Your task to perform on an android device: View the shopping cart on newegg. Add dell xps to the cart on newegg, then select checkout. Image 0: 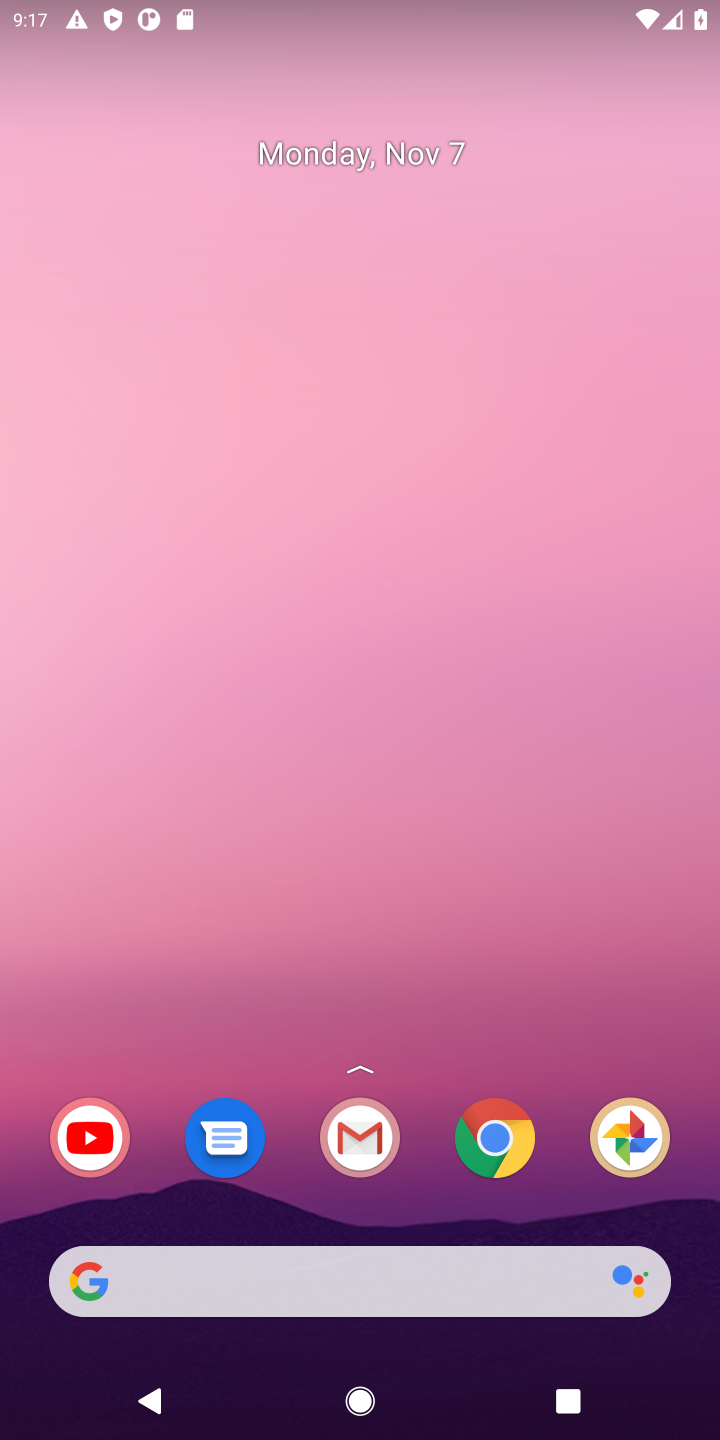
Step 0: click (500, 1156)
Your task to perform on an android device: View the shopping cart on newegg. Add dell xps to the cart on newegg, then select checkout. Image 1: 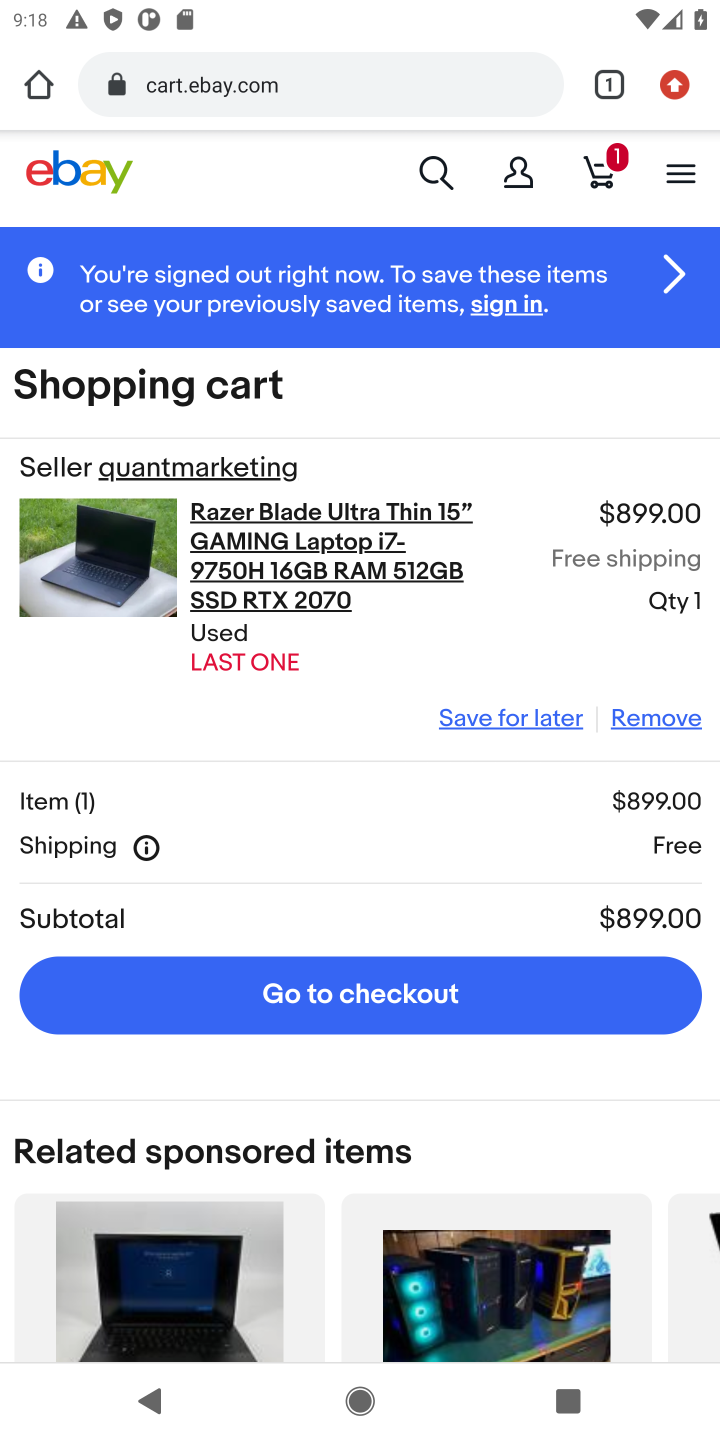
Step 1: click (172, 85)
Your task to perform on an android device: View the shopping cart on newegg. Add dell xps to the cart on newegg, then select checkout. Image 2: 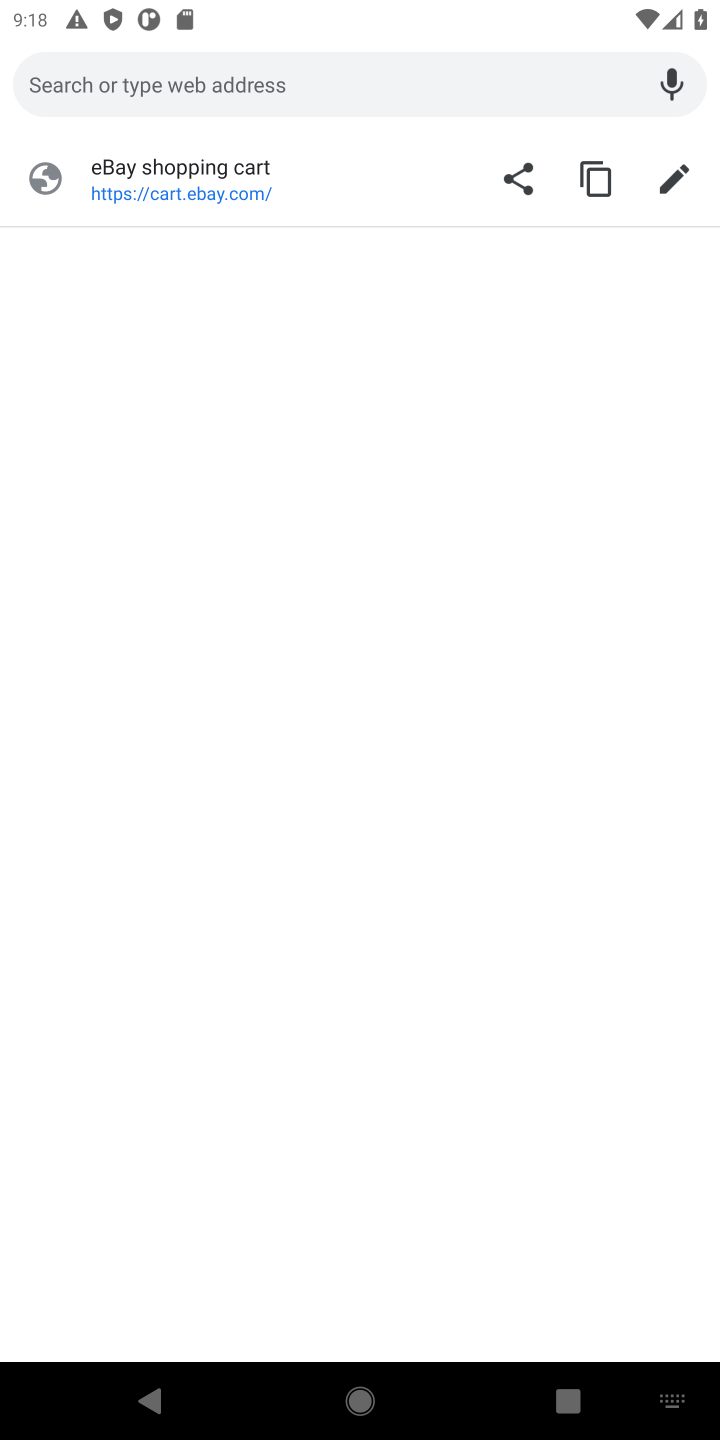
Step 2: type "newegg"
Your task to perform on an android device: View the shopping cart on newegg. Add dell xps to the cart on newegg, then select checkout. Image 3: 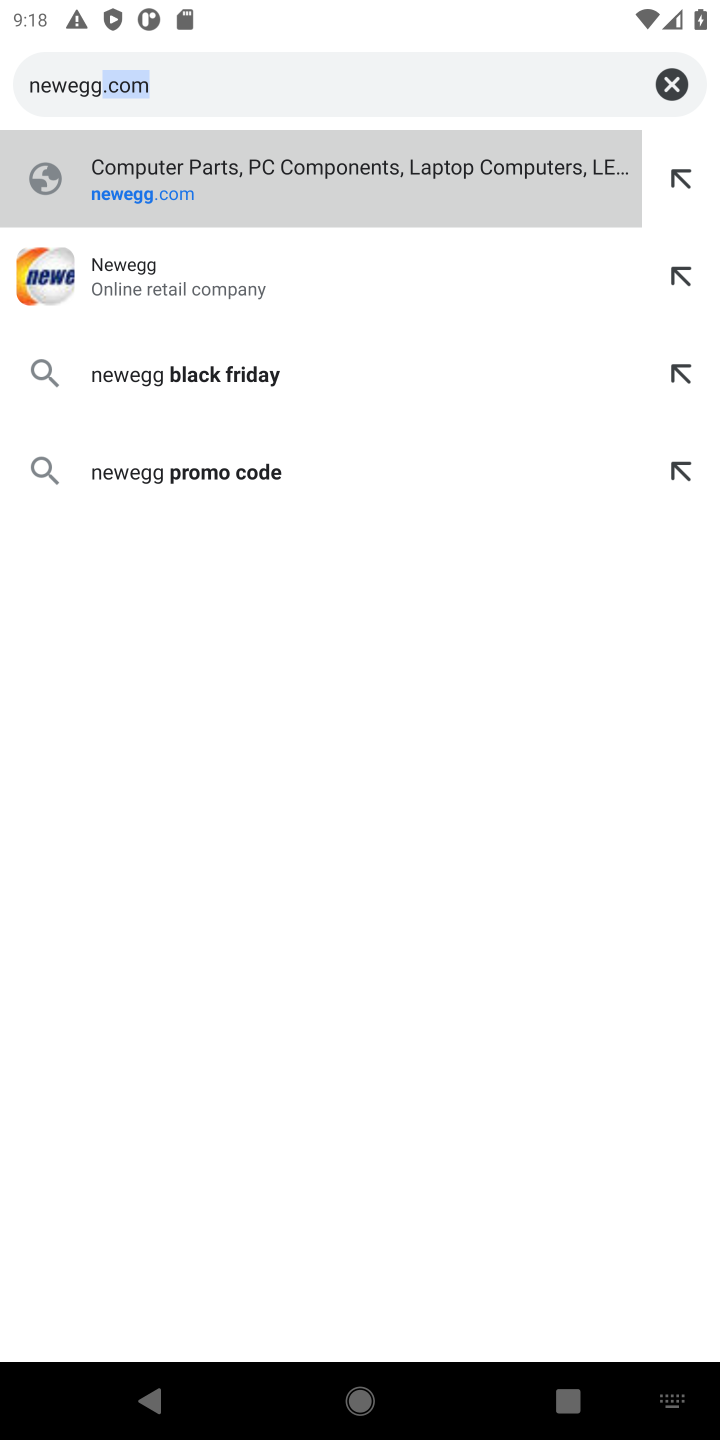
Step 3: type ""
Your task to perform on an android device: View the shopping cart on newegg. Add dell xps to the cart on newegg, then select checkout. Image 4: 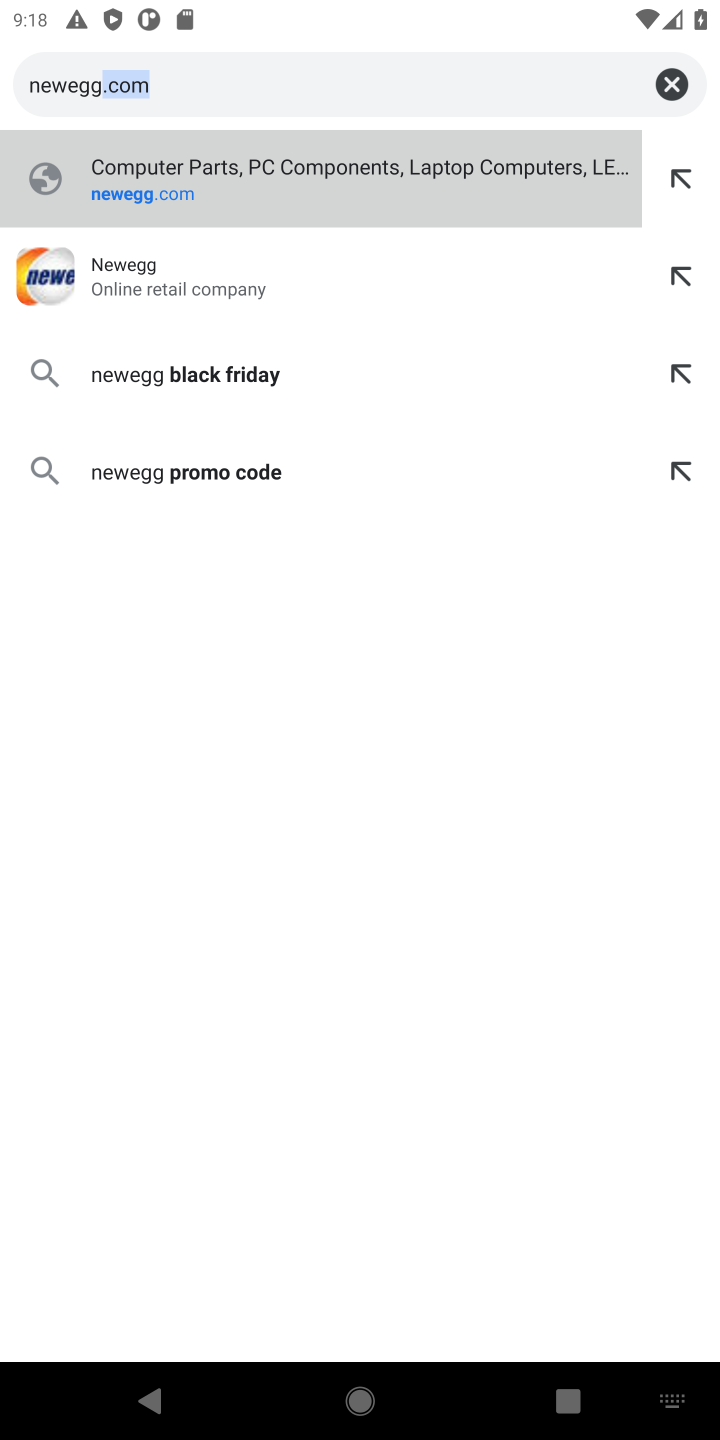
Step 4: click (150, 293)
Your task to perform on an android device: View the shopping cart on newegg. Add dell xps to the cart on newegg, then select checkout. Image 5: 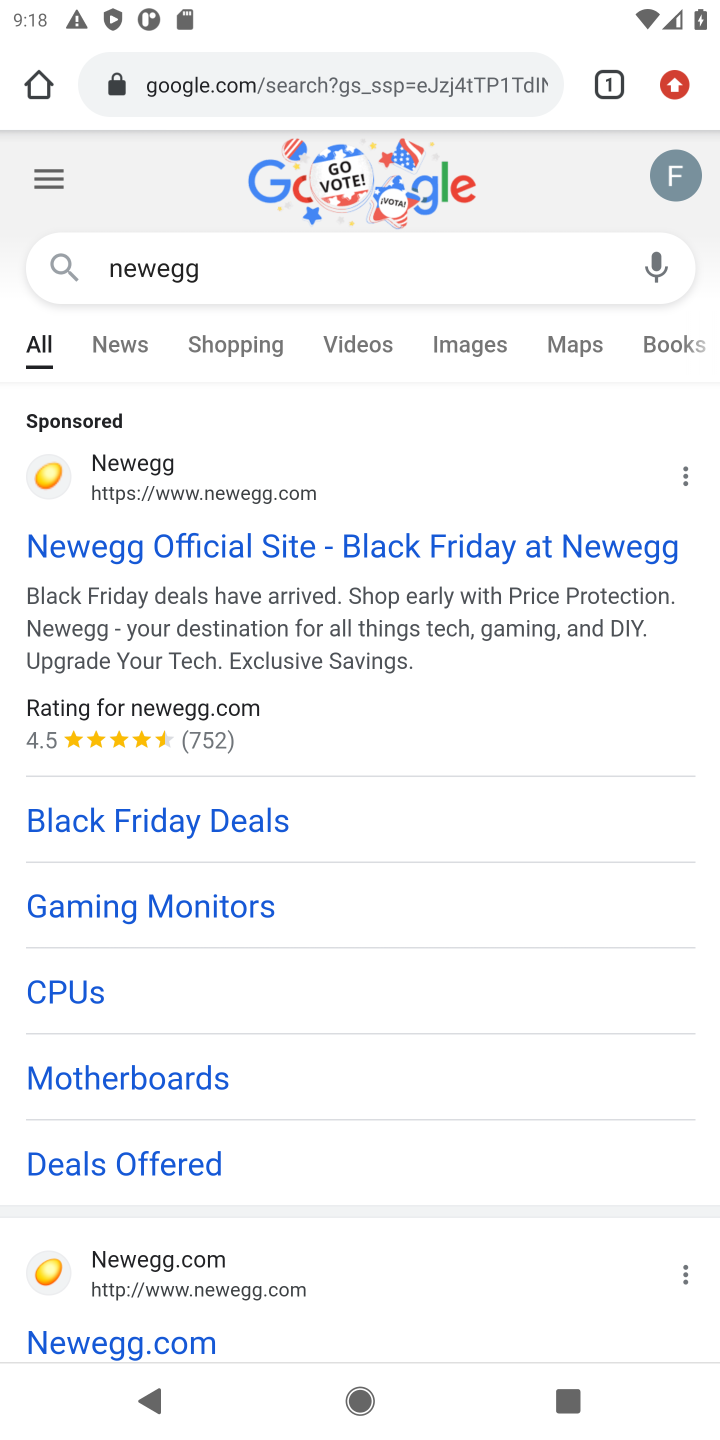
Step 5: drag from (190, 1004) to (263, 325)
Your task to perform on an android device: View the shopping cart on newegg. Add dell xps to the cart on newegg, then select checkout. Image 6: 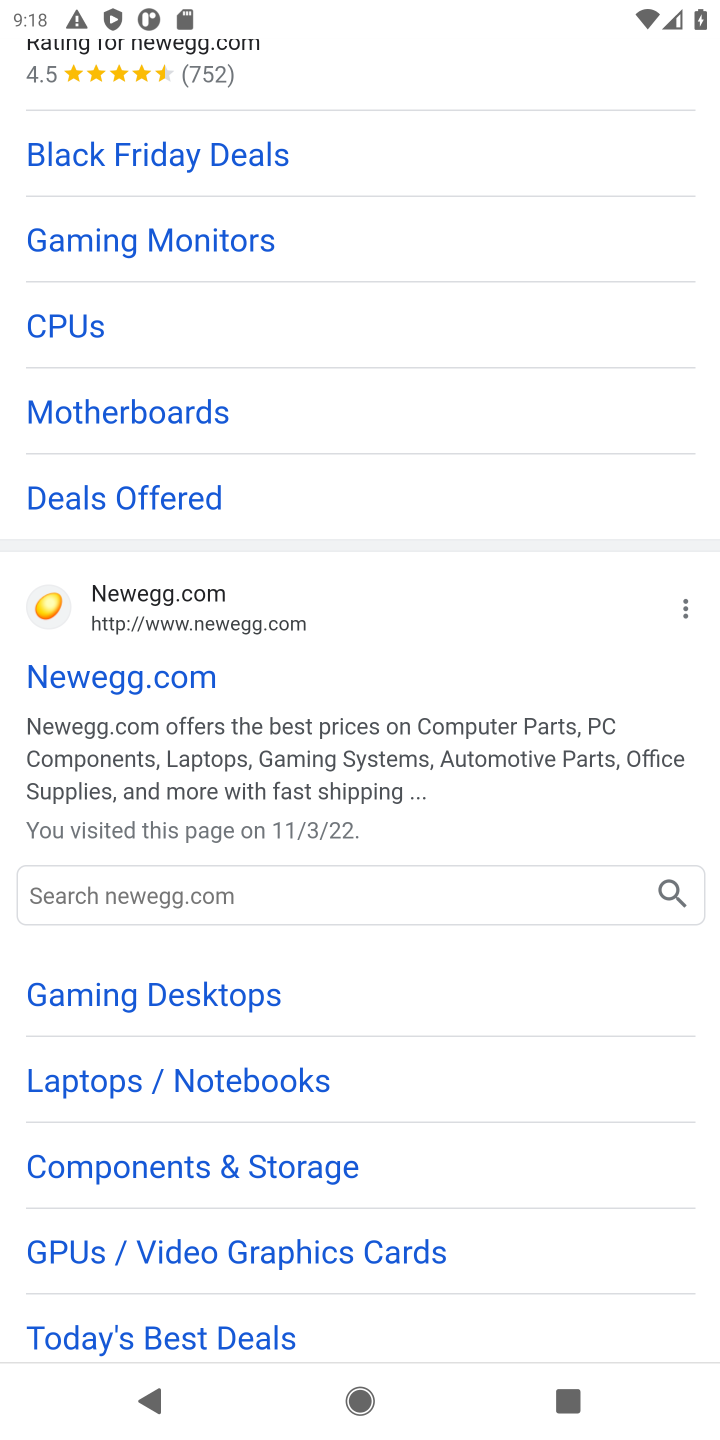
Step 6: click (199, 405)
Your task to perform on an android device: View the shopping cart on newegg. Add dell xps to the cart on newegg, then select checkout. Image 7: 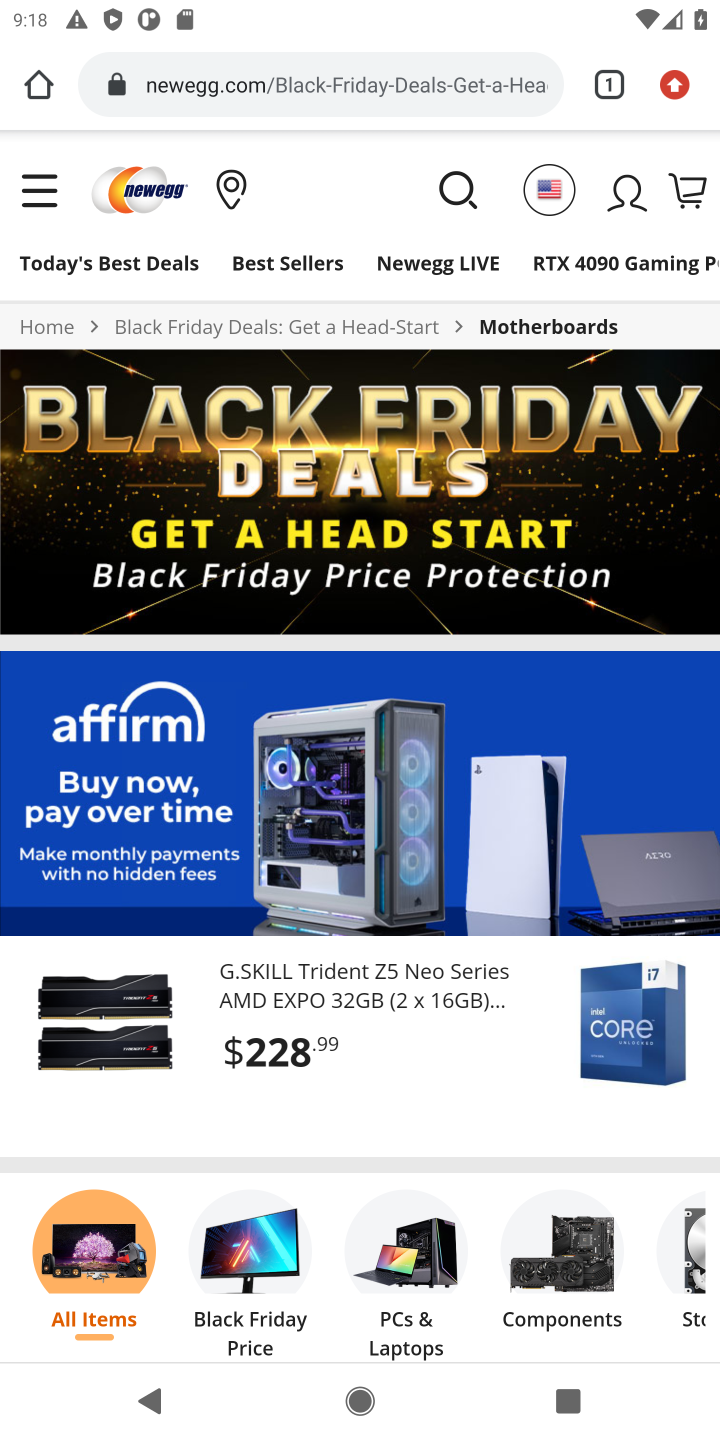
Step 7: click (455, 187)
Your task to perform on an android device: View the shopping cart on newegg. Add dell xps to the cart on newegg, then select checkout. Image 8: 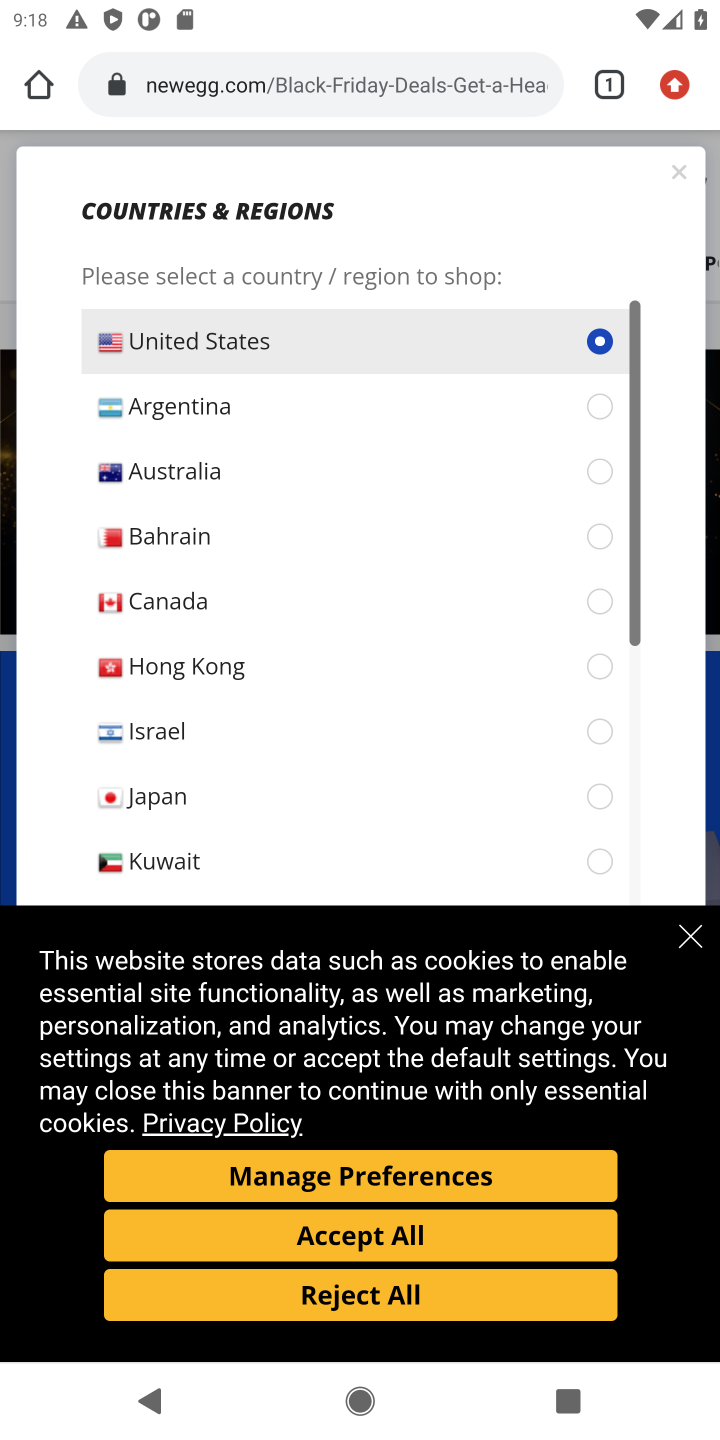
Step 8: click (204, 345)
Your task to perform on an android device: View the shopping cart on newegg. Add dell xps to the cart on newegg, then select checkout. Image 9: 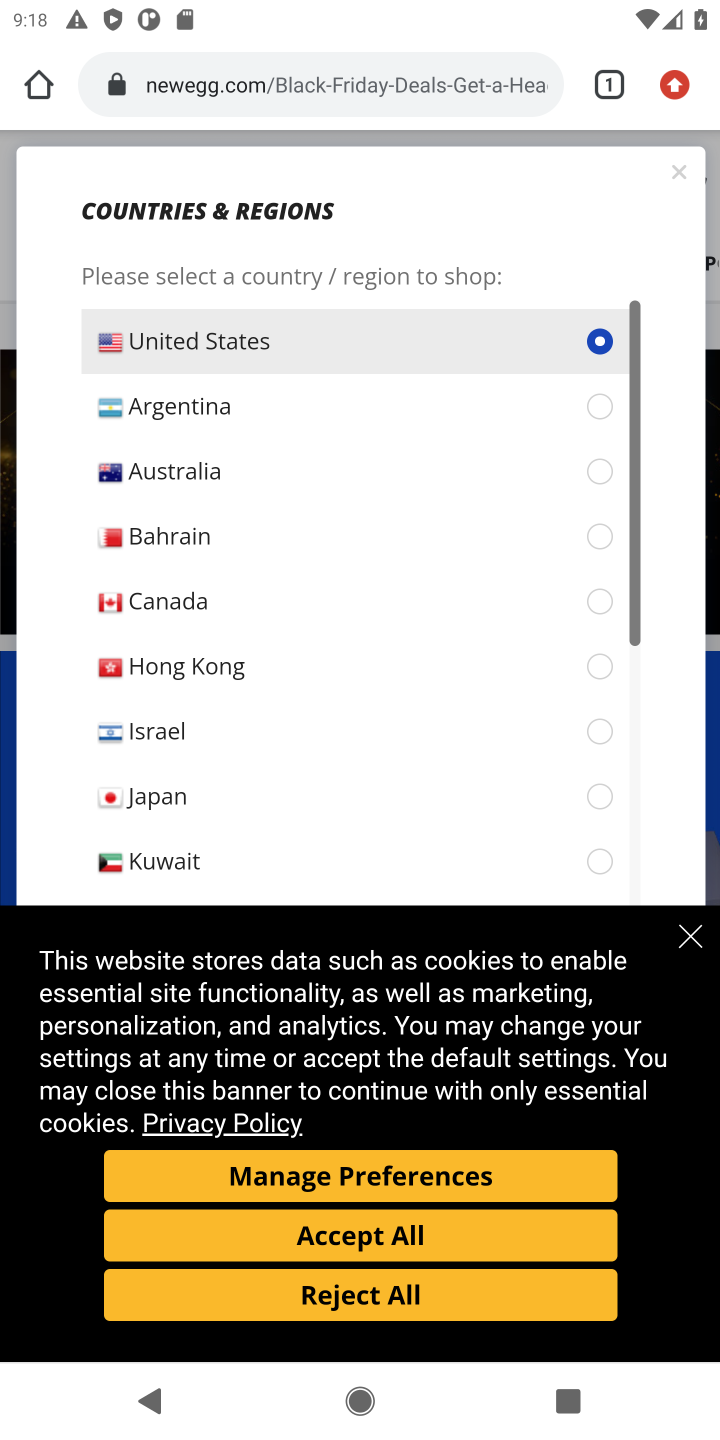
Step 9: click (690, 940)
Your task to perform on an android device: View the shopping cart on newegg. Add dell xps to the cart on newegg, then select checkout. Image 10: 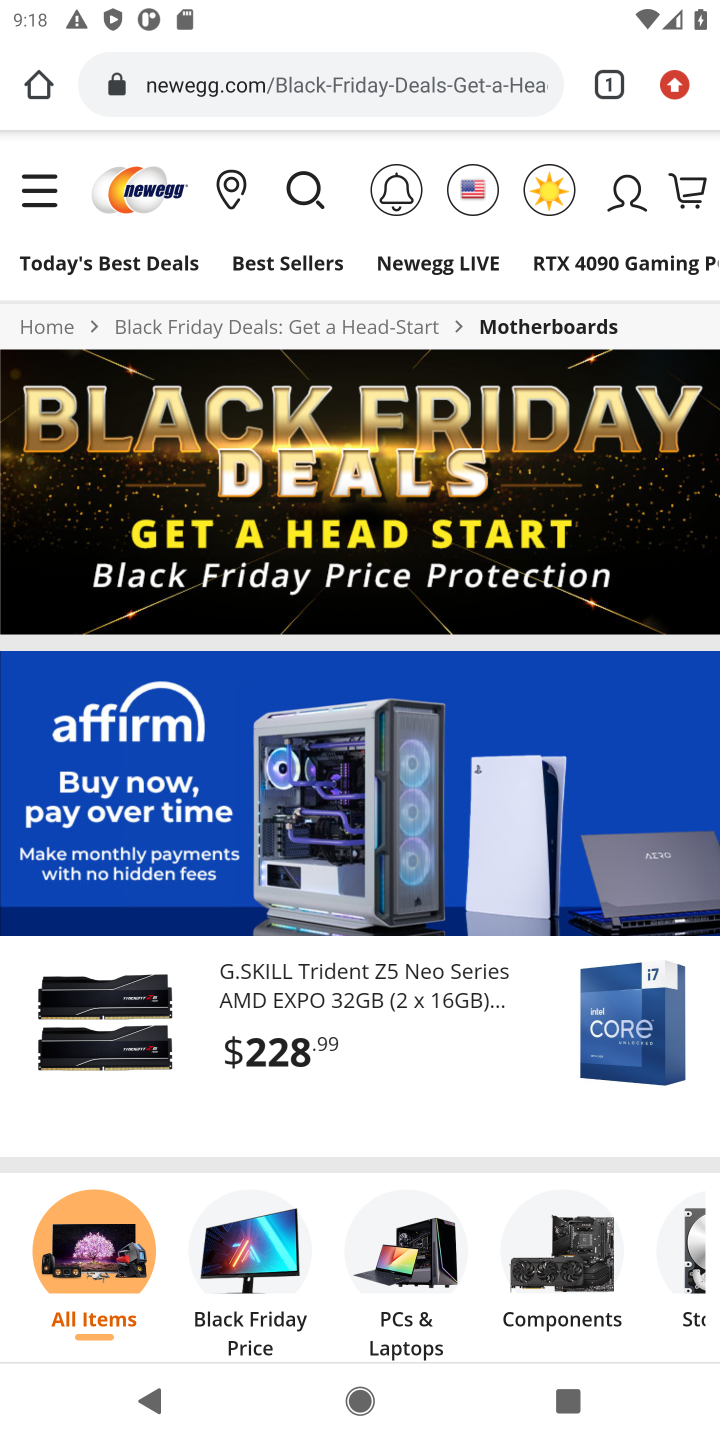
Step 10: click (300, 201)
Your task to perform on an android device: View the shopping cart on newegg. Add dell xps to the cart on newegg, then select checkout. Image 11: 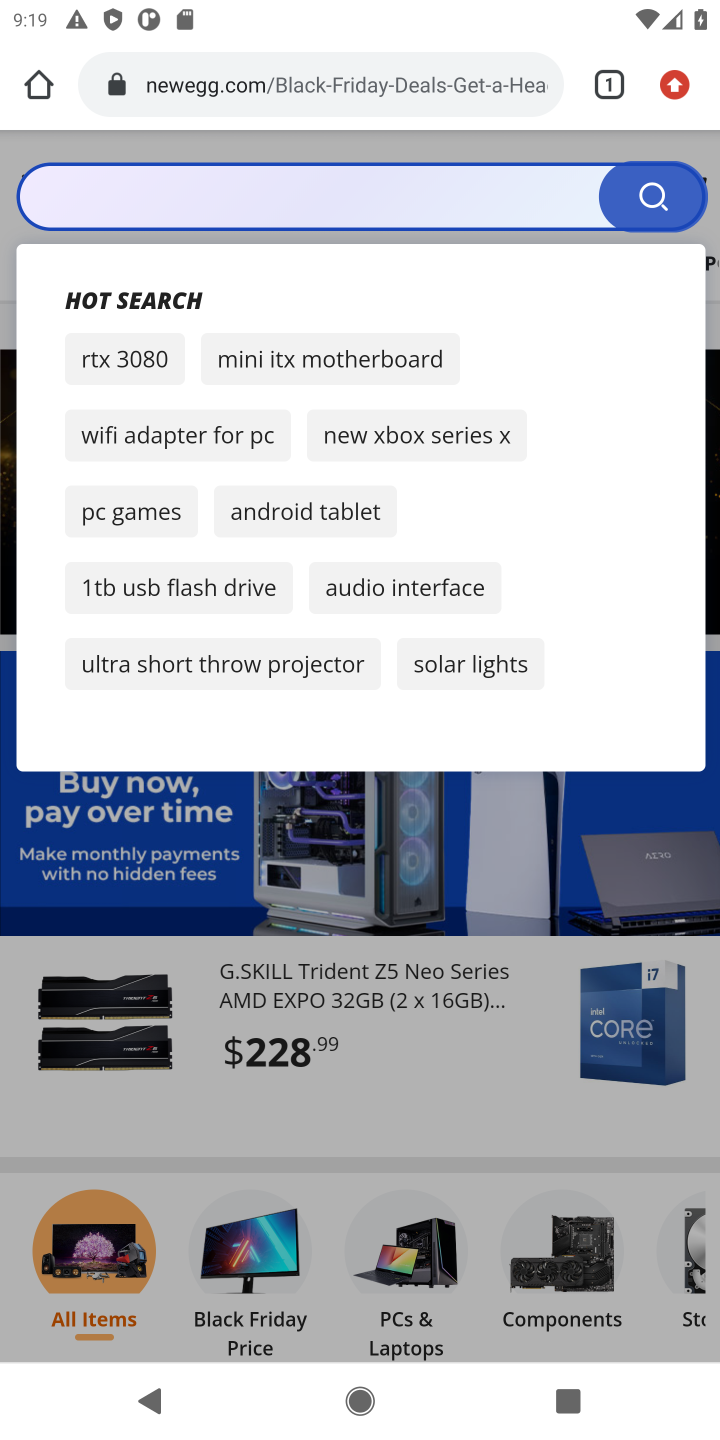
Step 11: click (160, 193)
Your task to perform on an android device: View the shopping cart on newegg. Add dell xps to the cart on newegg, then select checkout. Image 12: 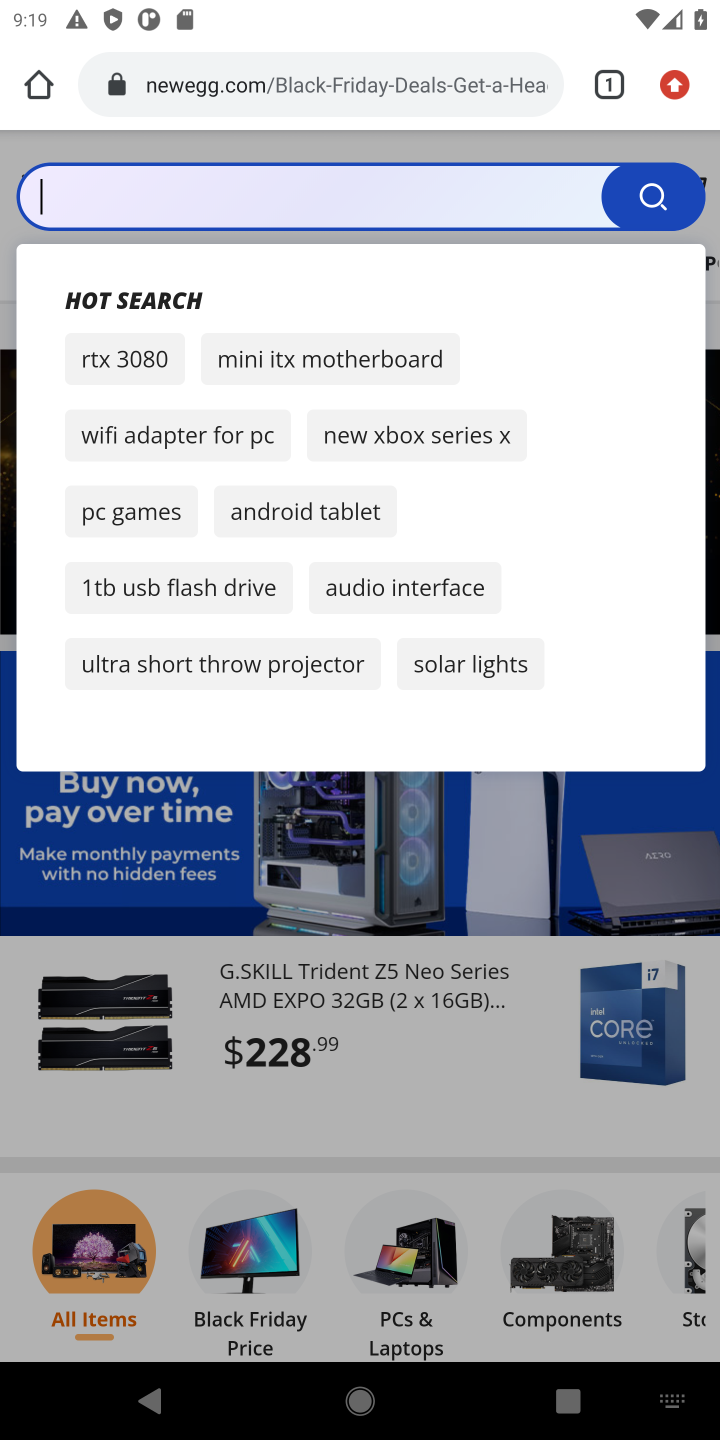
Step 12: type "dell xps "
Your task to perform on an android device: View the shopping cart on newegg. Add dell xps to the cart on newegg, then select checkout. Image 13: 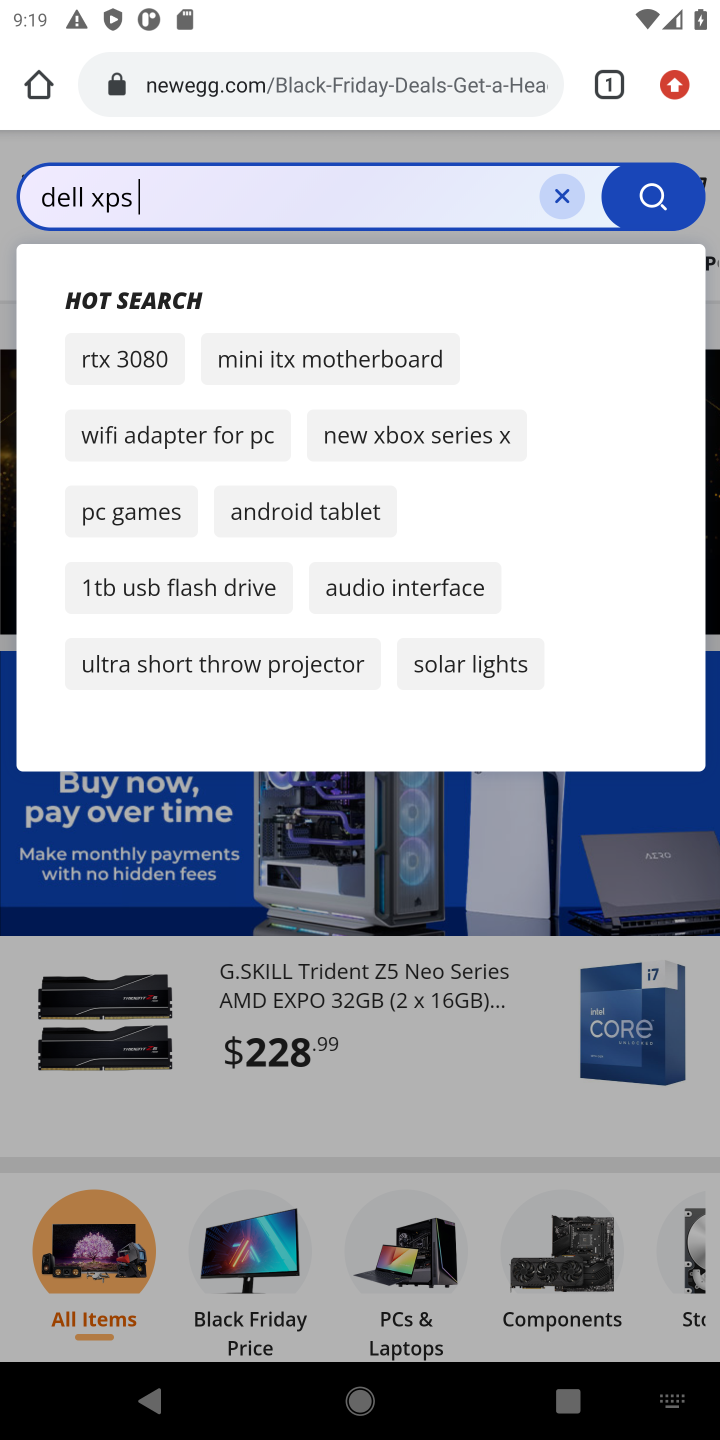
Step 13: type ""
Your task to perform on an android device: View the shopping cart on newegg. Add dell xps to the cart on newegg, then select checkout. Image 14: 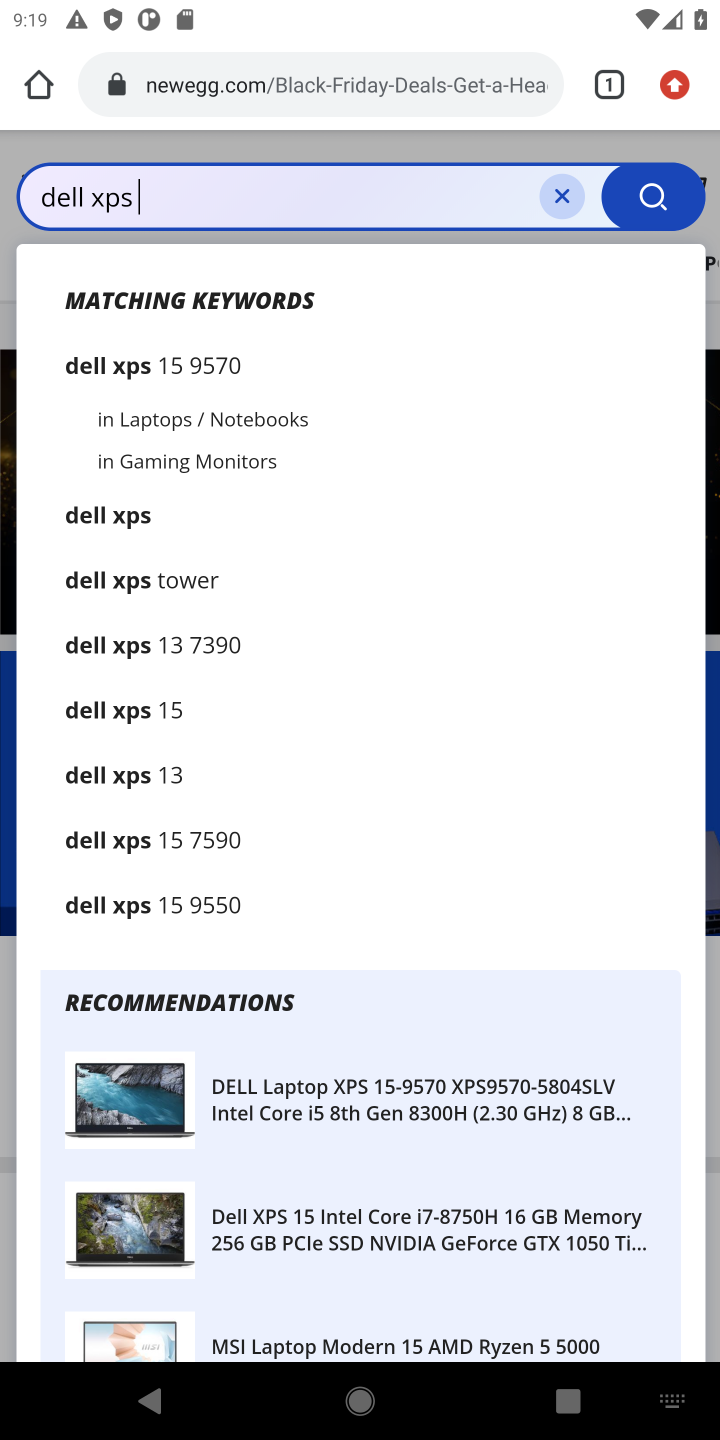
Step 14: click (183, 368)
Your task to perform on an android device: View the shopping cart on newegg. Add dell xps to the cart on newegg, then select checkout. Image 15: 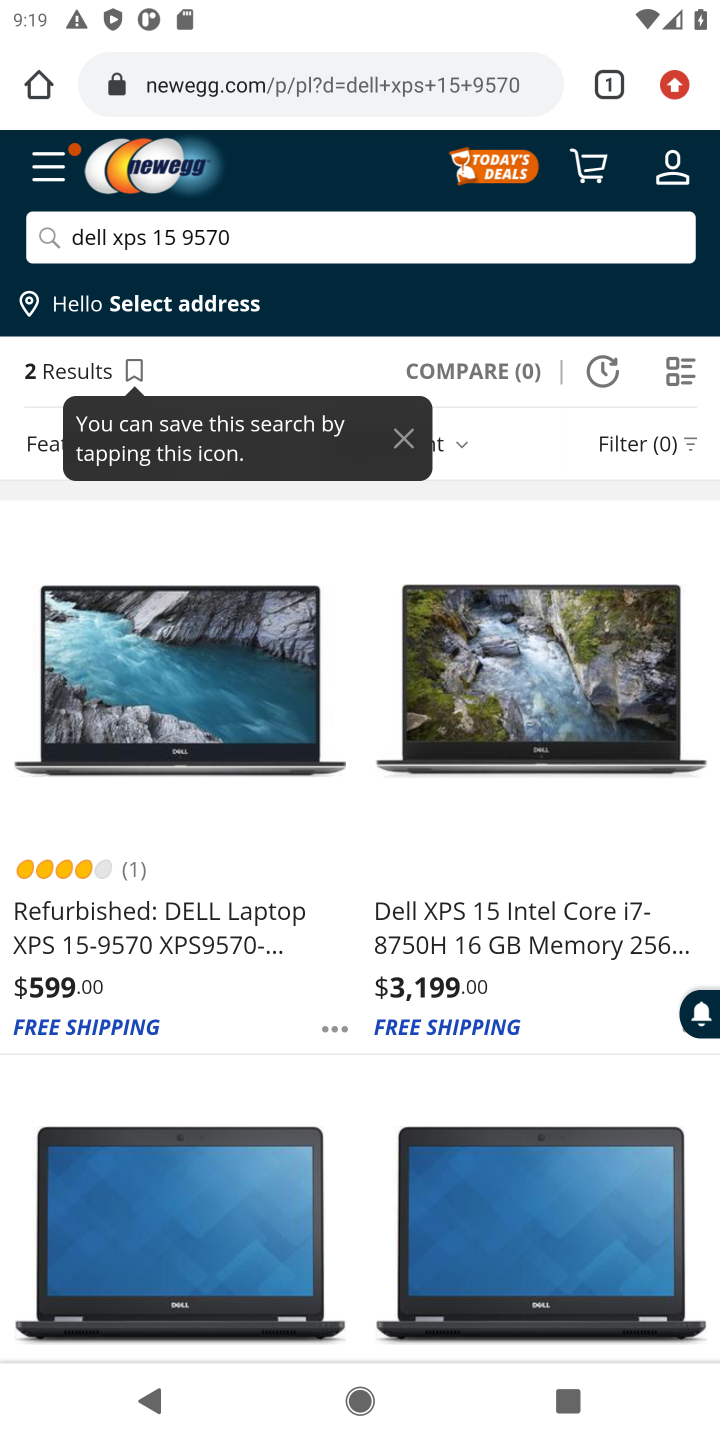
Step 15: click (504, 732)
Your task to perform on an android device: View the shopping cart on newegg. Add dell xps to the cart on newegg, then select checkout. Image 16: 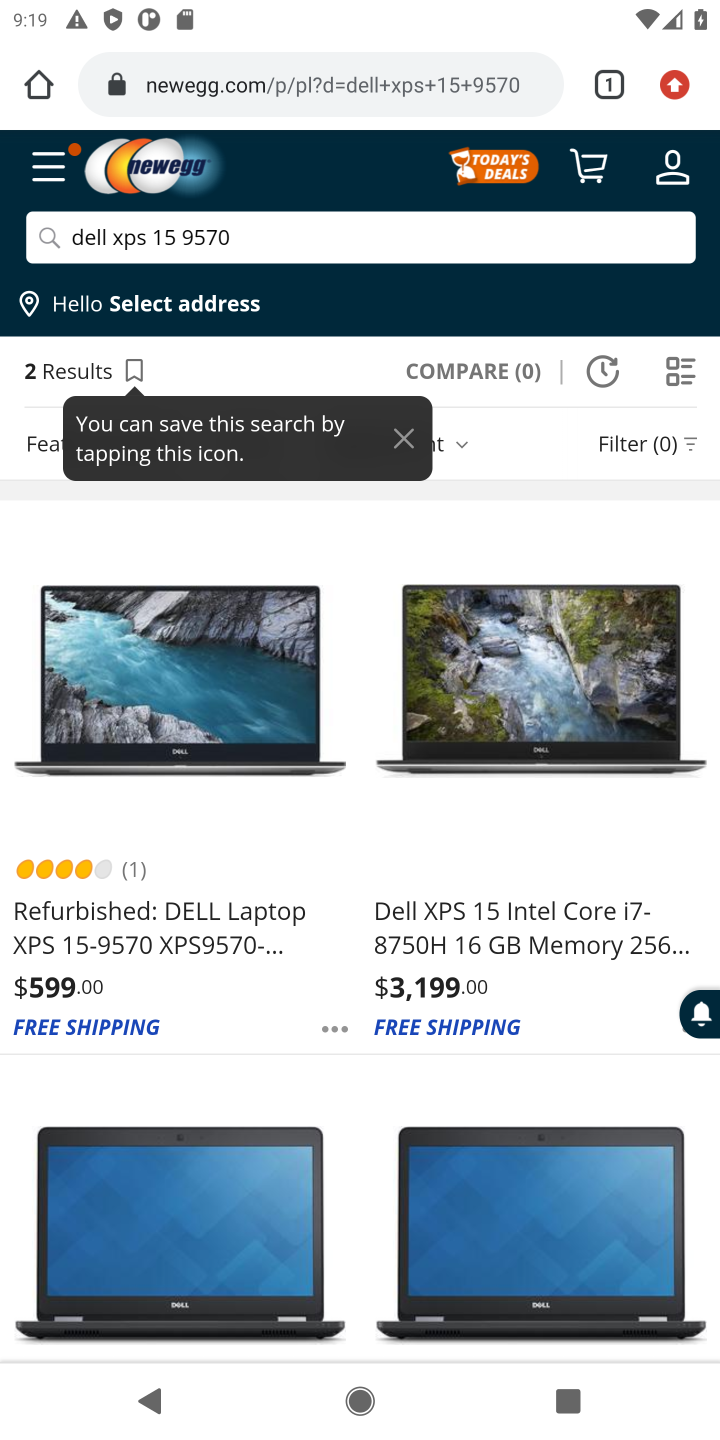
Step 16: click (517, 921)
Your task to perform on an android device: View the shopping cart on newegg. Add dell xps to the cart on newegg, then select checkout. Image 17: 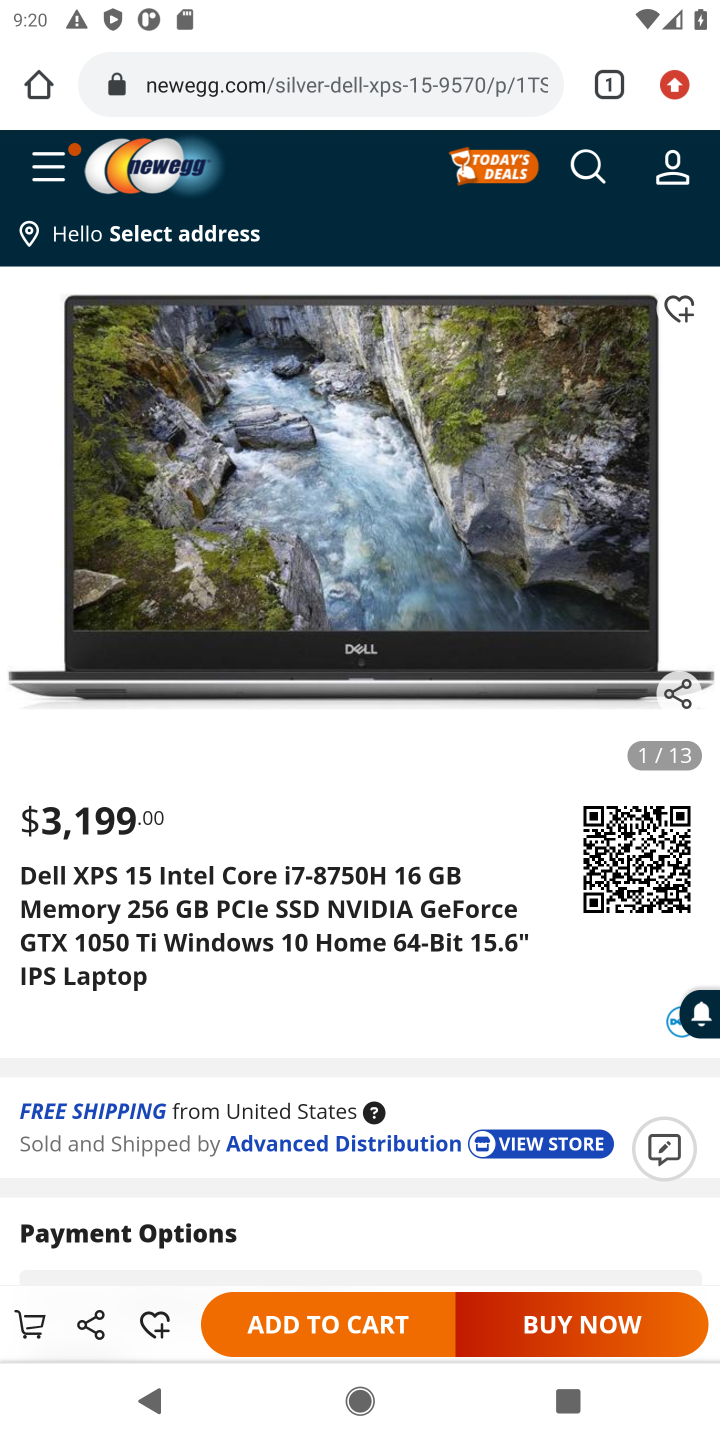
Step 17: click (360, 1325)
Your task to perform on an android device: View the shopping cart on newegg. Add dell xps to the cart on newegg, then select checkout. Image 18: 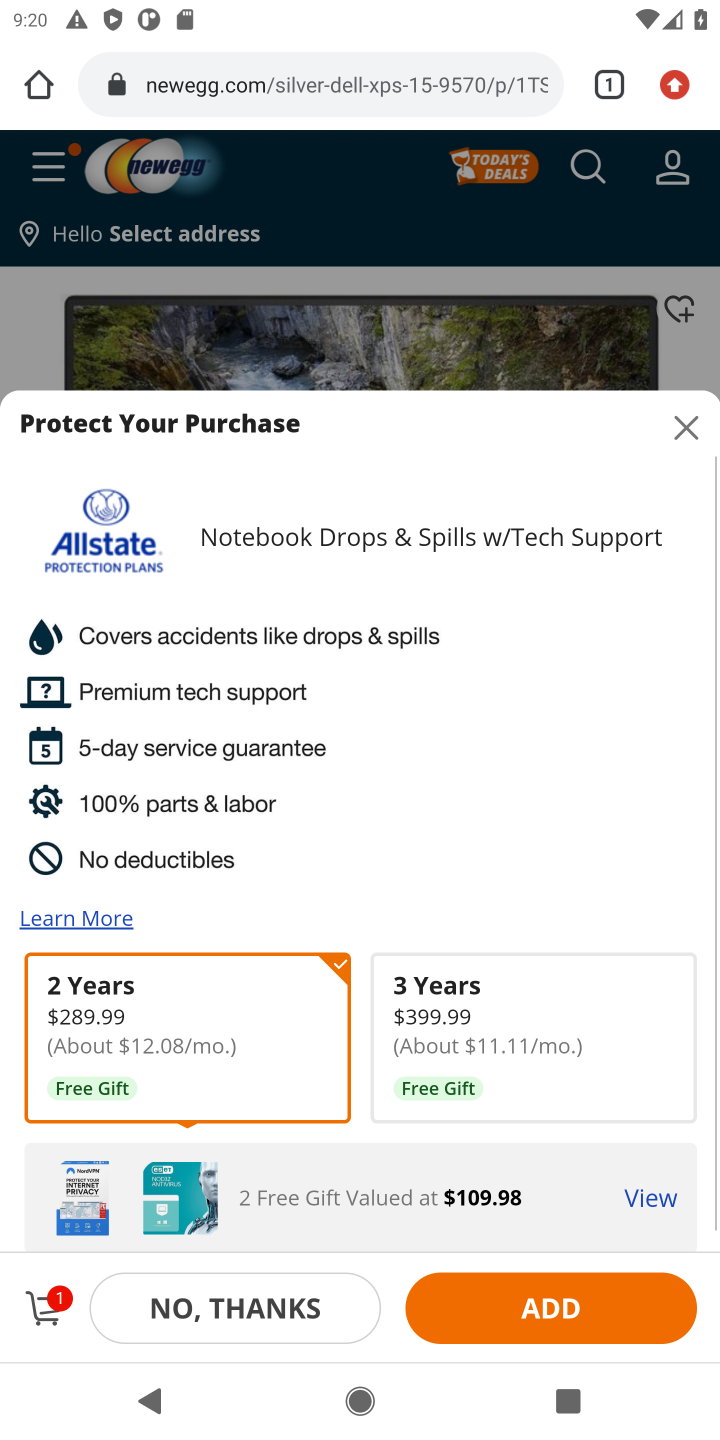
Step 18: task complete